Your task to perform on an android device: Go to display settings Image 0: 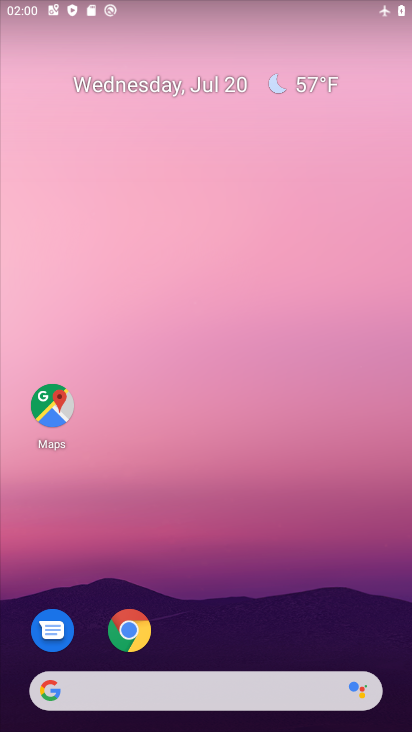
Step 0: drag from (324, 589) to (234, 41)
Your task to perform on an android device: Go to display settings Image 1: 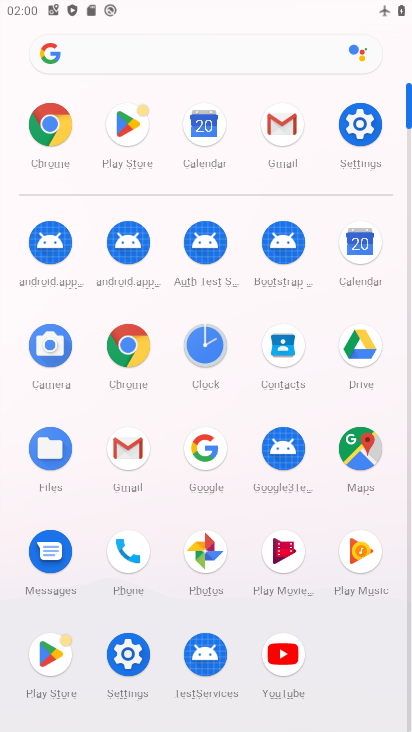
Step 1: click (377, 123)
Your task to perform on an android device: Go to display settings Image 2: 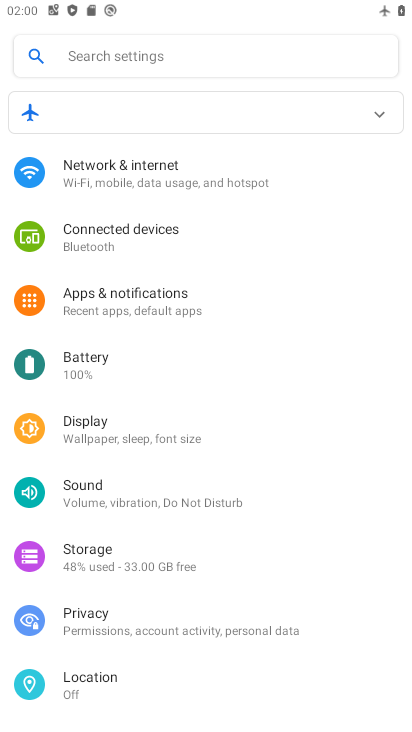
Step 2: click (96, 432)
Your task to perform on an android device: Go to display settings Image 3: 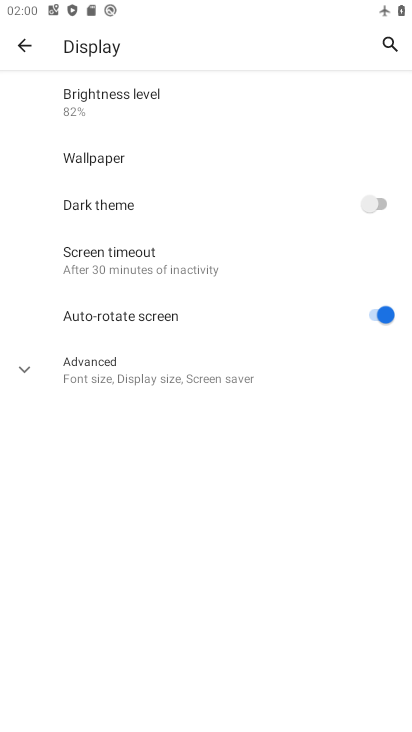
Step 3: task complete